Your task to perform on an android device: toggle notifications settings in the gmail app Image 0: 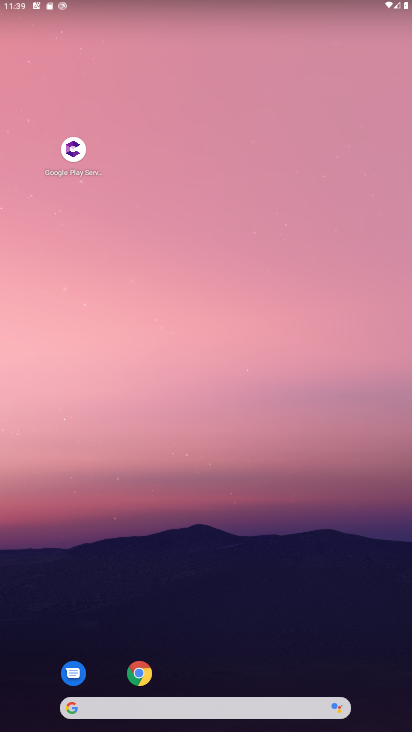
Step 0: drag from (298, 683) to (242, 165)
Your task to perform on an android device: toggle notifications settings in the gmail app Image 1: 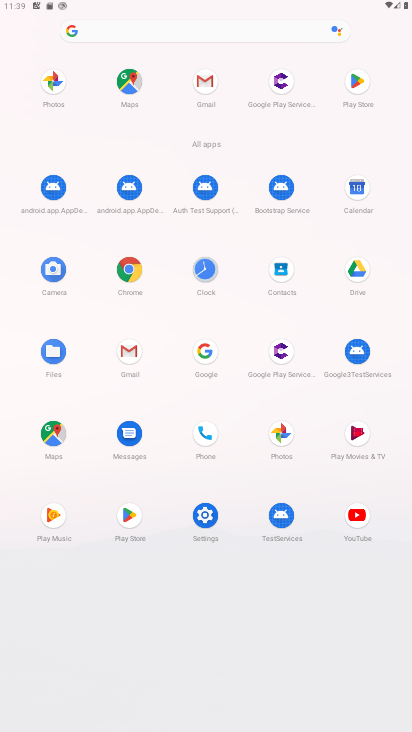
Step 1: click (204, 88)
Your task to perform on an android device: toggle notifications settings in the gmail app Image 2: 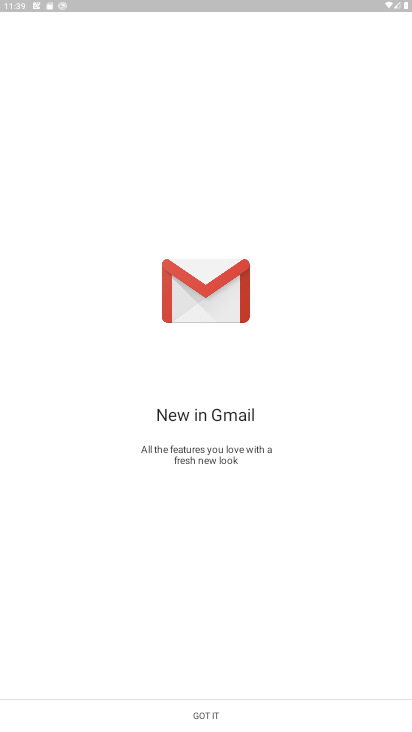
Step 2: click (229, 721)
Your task to perform on an android device: toggle notifications settings in the gmail app Image 3: 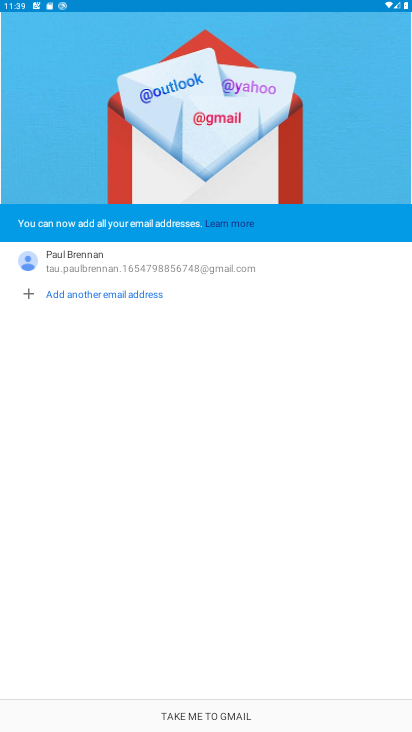
Step 3: click (229, 721)
Your task to perform on an android device: toggle notifications settings in the gmail app Image 4: 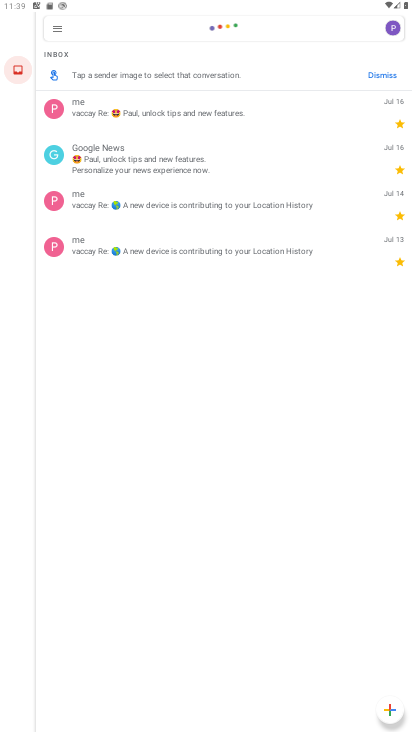
Step 4: click (59, 27)
Your task to perform on an android device: toggle notifications settings in the gmail app Image 5: 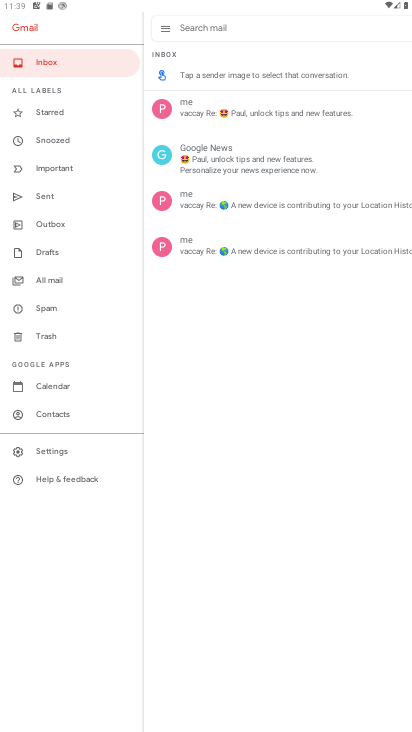
Step 5: click (72, 456)
Your task to perform on an android device: toggle notifications settings in the gmail app Image 6: 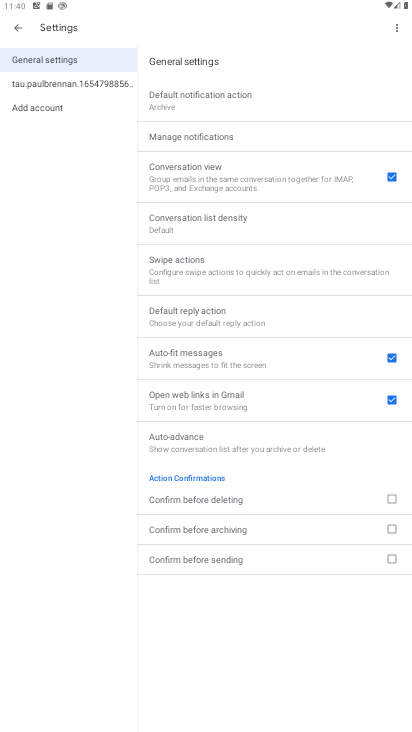
Step 6: click (110, 76)
Your task to perform on an android device: toggle notifications settings in the gmail app Image 7: 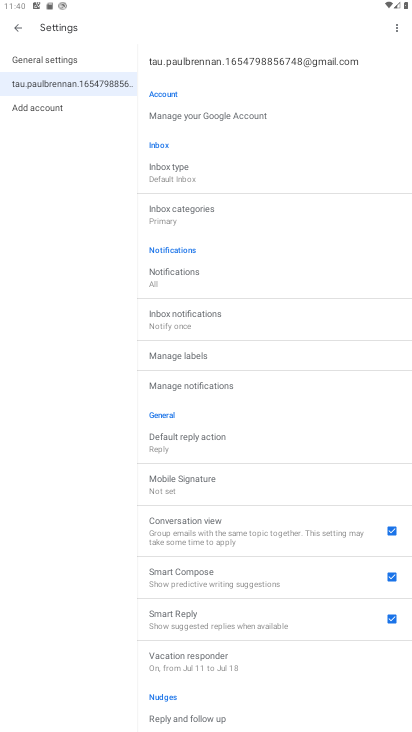
Step 7: click (188, 388)
Your task to perform on an android device: toggle notifications settings in the gmail app Image 8: 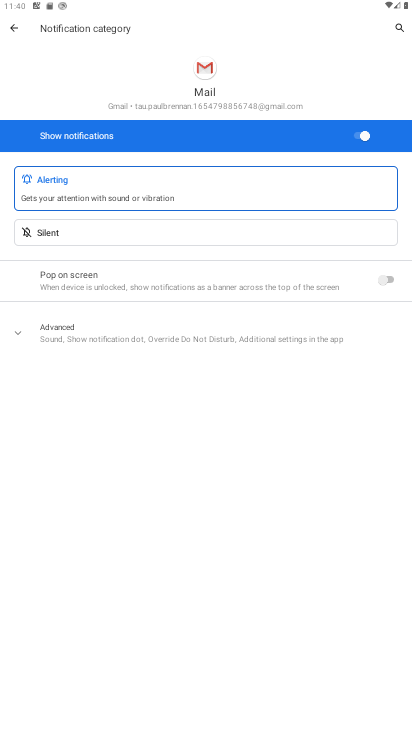
Step 8: click (161, 233)
Your task to perform on an android device: toggle notifications settings in the gmail app Image 9: 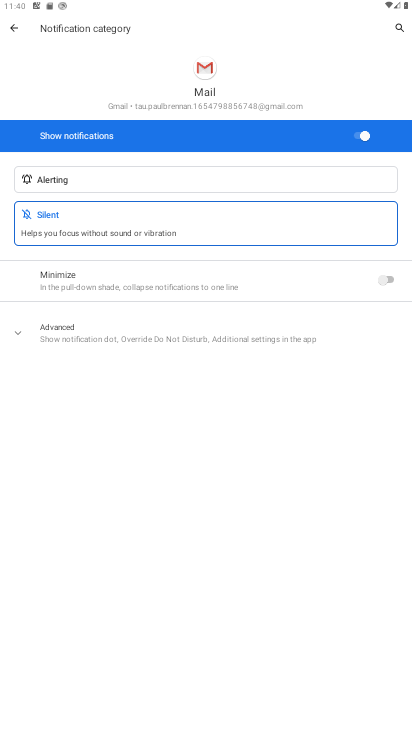
Step 9: click (378, 280)
Your task to perform on an android device: toggle notifications settings in the gmail app Image 10: 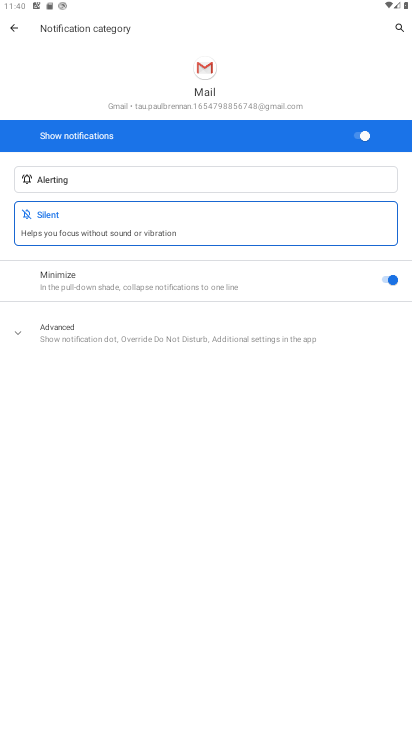
Step 10: task complete